Your task to perform on an android device: turn pop-ups on in chrome Image 0: 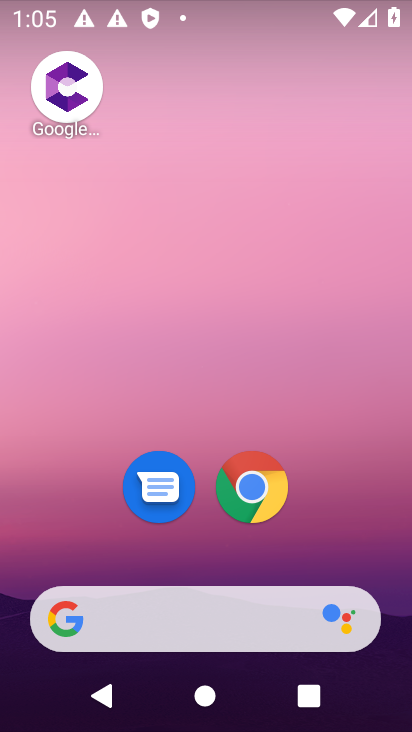
Step 0: drag from (298, 546) to (245, 85)
Your task to perform on an android device: turn pop-ups on in chrome Image 1: 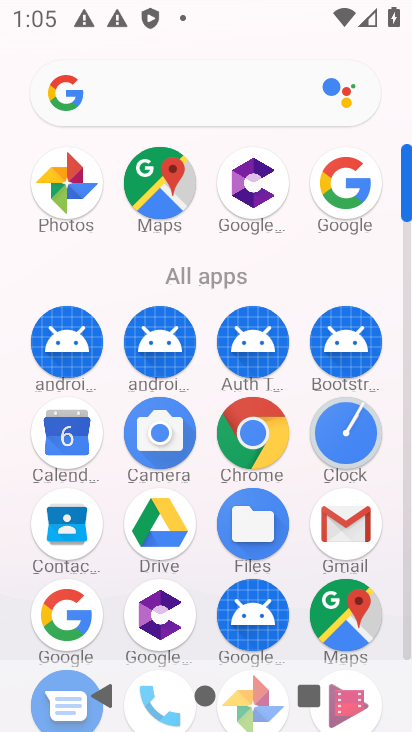
Step 1: click (255, 433)
Your task to perform on an android device: turn pop-ups on in chrome Image 2: 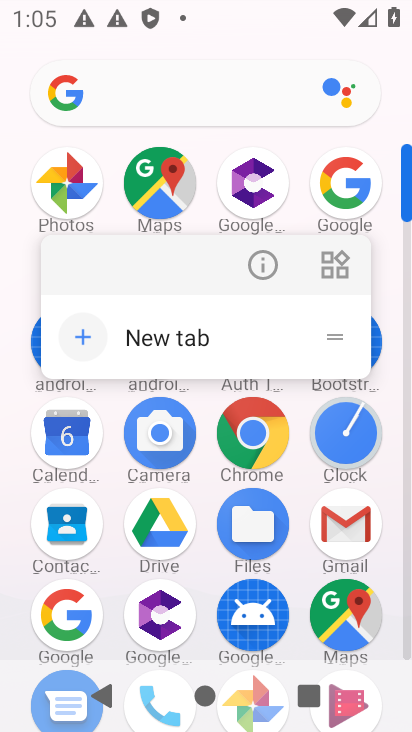
Step 2: click (261, 428)
Your task to perform on an android device: turn pop-ups on in chrome Image 3: 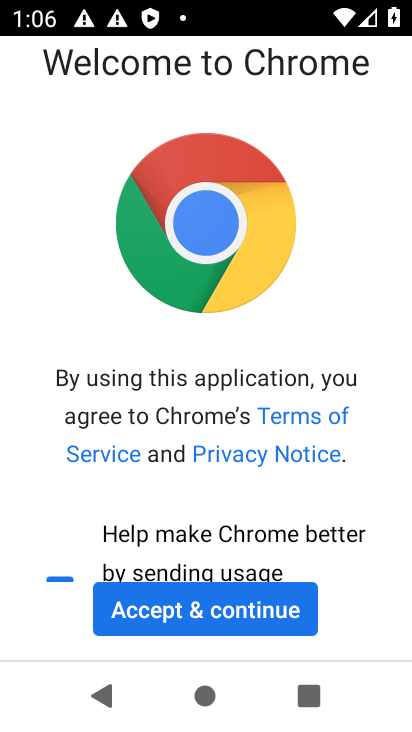
Step 3: click (259, 616)
Your task to perform on an android device: turn pop-ups on in chrome Image 4: 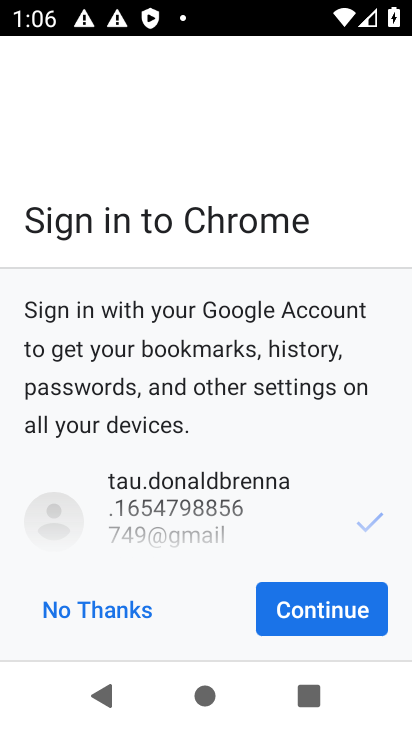
Step 4: click (99, 614)
Your task to perform on an android device: turn pop-ups on in chrome Image 5: 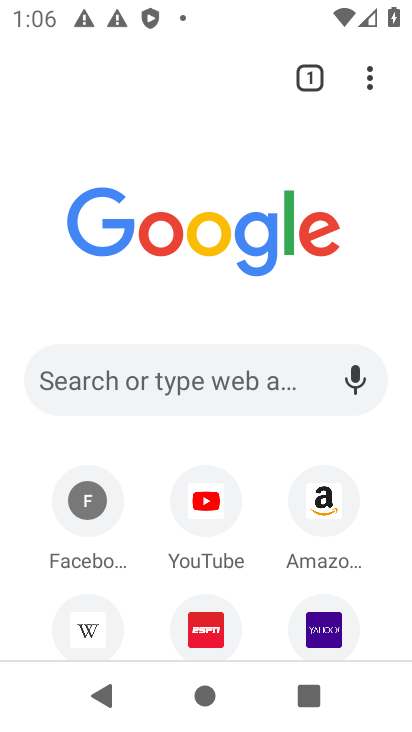
Step 5: drag from (364, 74) to (106, 558)
Your task to perform on an android device: turn pop-ups on in chrome Image 6: 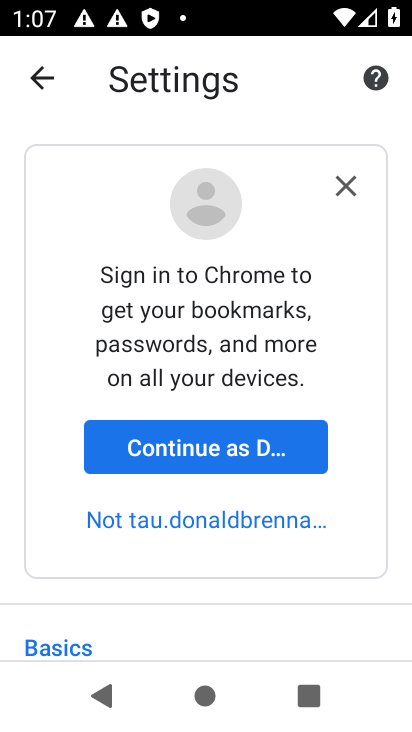
Step 6: drag from (268, 574) to (263, 259)
Your task to perform on an android device: turn pop-ups on in chrome Image 7: 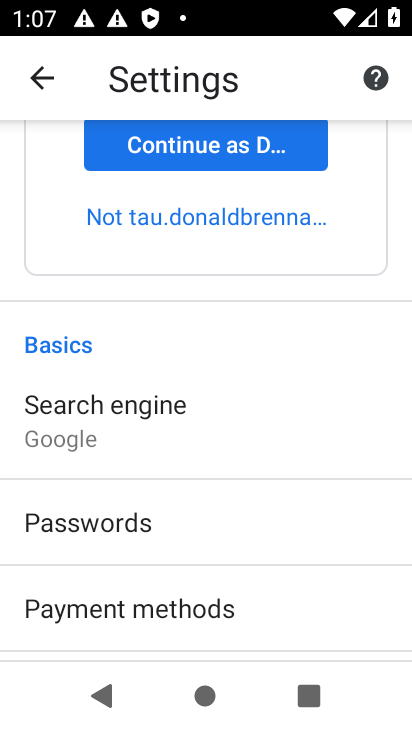
Step 7: drag from (123, 499) to (146, 289)
Your task to perform on an android device: turn pop-ups on in chrome Image 8: 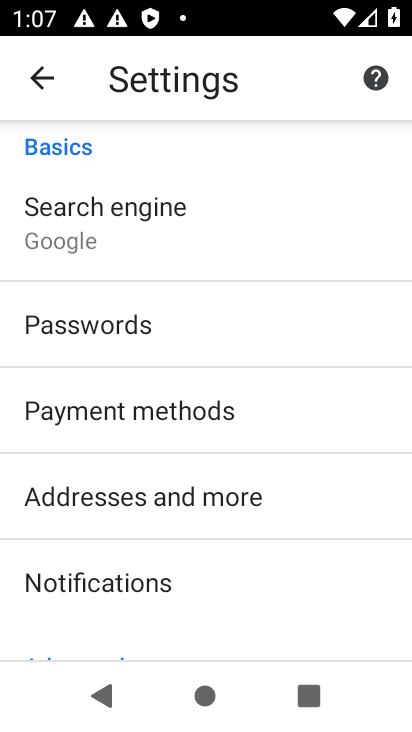
Step 8: drag from (160, 621) to (203, 218)
Your task to perform on an android device: turn pop-ups on in chrome Image 9: 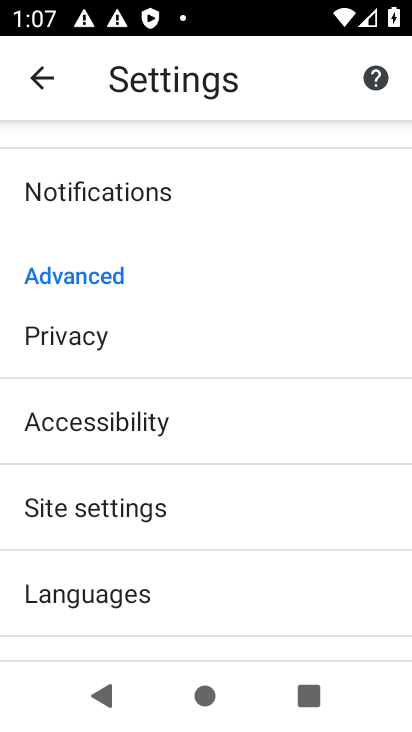
Step 9: click (99, 505)
Your task to perform on an android device: turn pop-ups on in chrome Image 10: 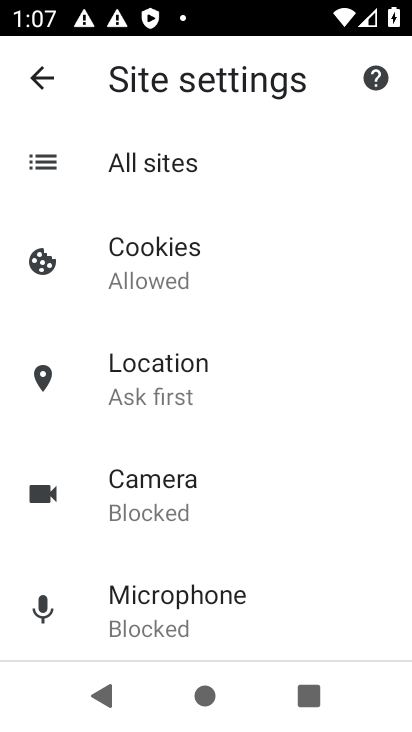
Step 10: drag from (113, 552) to (153, 191)
Your task to perform on an android device: turn pop-ups on in chrome Image 11: 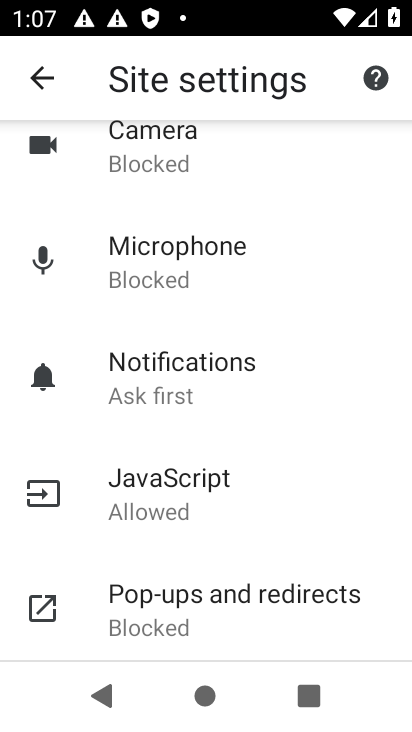
Step 11: drag from (175, 557) to (158, 212)
Your task to perform on an android device: turn pop-ups on in chrome Image 12: 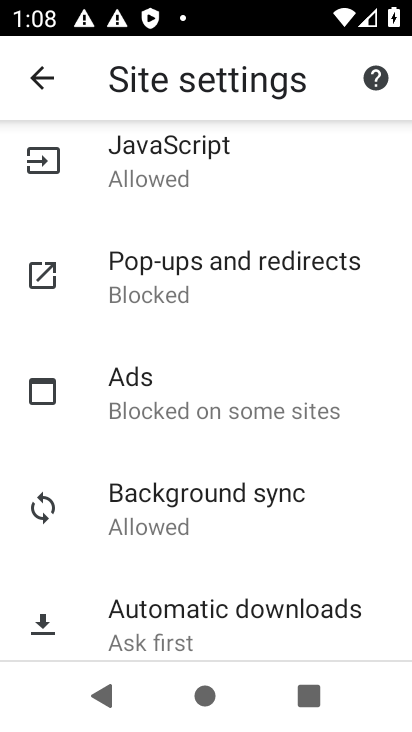
Step 12: click (118, 291)
Your task to perform on an android device: turn pop-ups on in chrome Image 13: 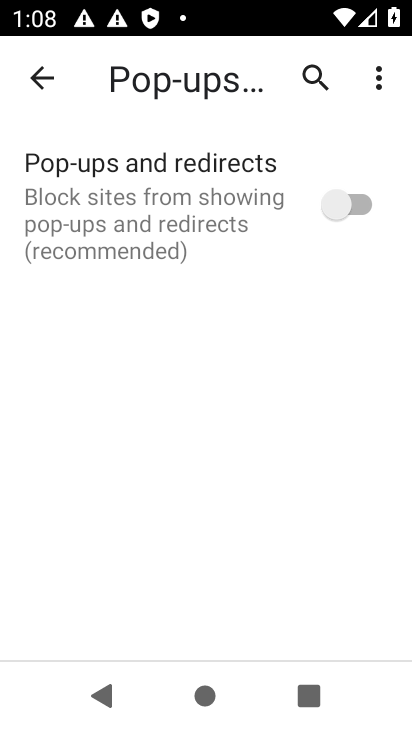
Step 13: click (358, 217)
Your task to perform on an android device: turn pop-ups on in chrome Image 14: 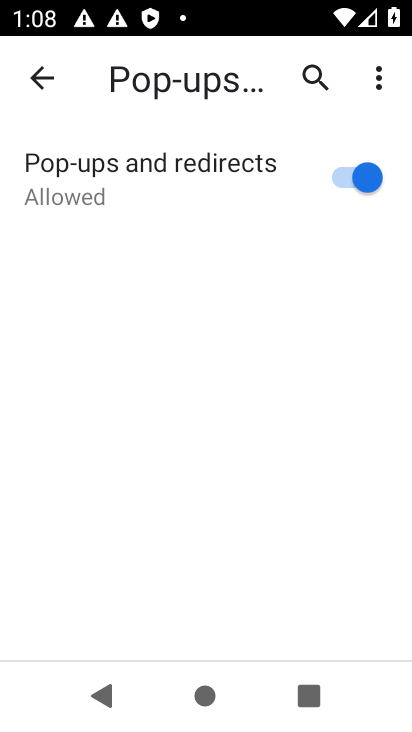
Step 14: task complete